Your task to perform on an android device: check google app version Image 0: 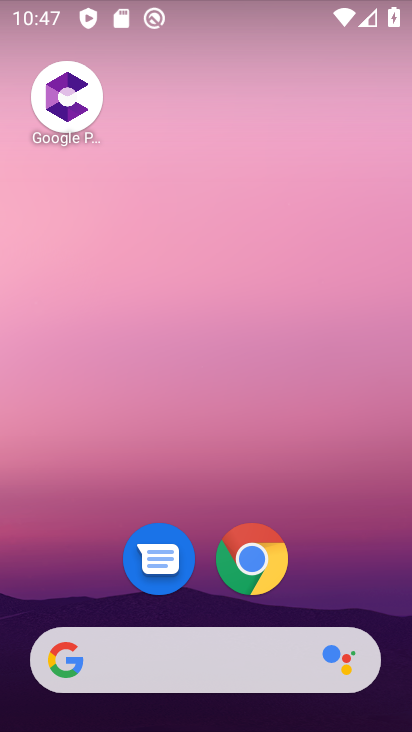
Step 0: drag from (357, 564) to (411, 35)
Your task to perform on an android device: check google app version Image 1: 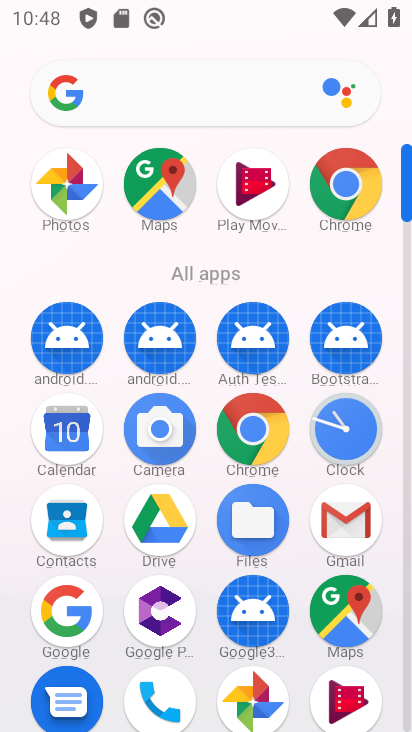
Step 1: drag from (291, 559) to (302, 150)
Your task to perform on an android device: check google app version Image 2: 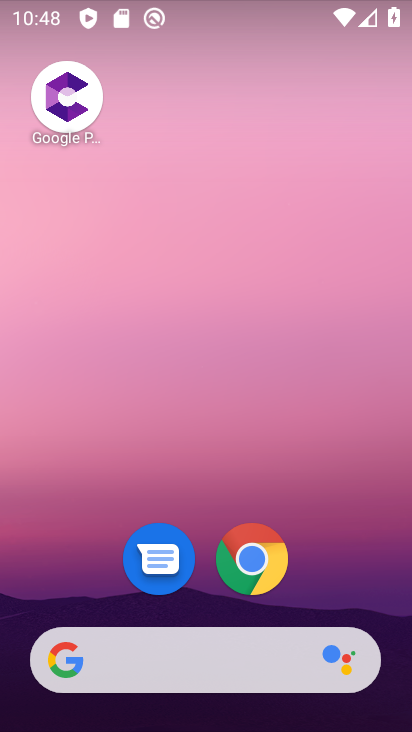
Step 2: drag from (363, 602) to (369, 155)
Your task to perform on an android device: check google app version Image 3: 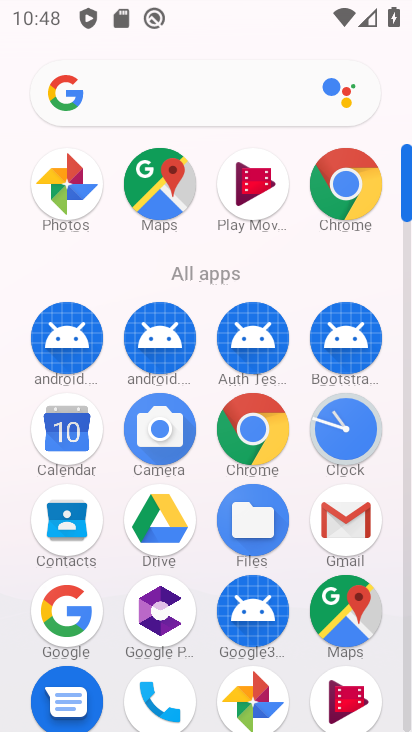
Step 3: click (405, 719)
Your task to perform on an android device: check google app version Image 4: 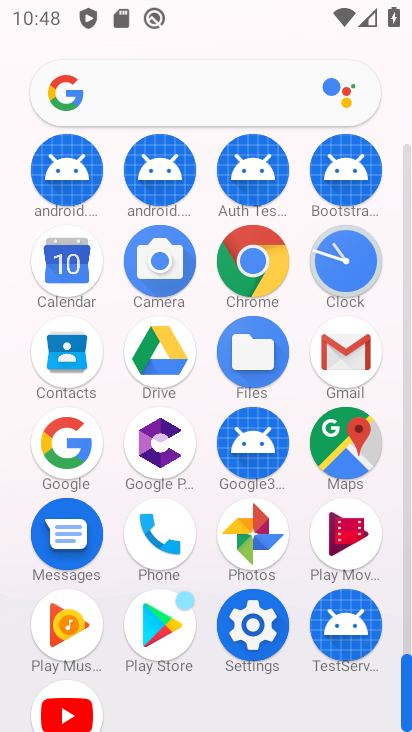
Step 4: click (78, 430)
Your task to perform on an android device: check google app version Image 5: 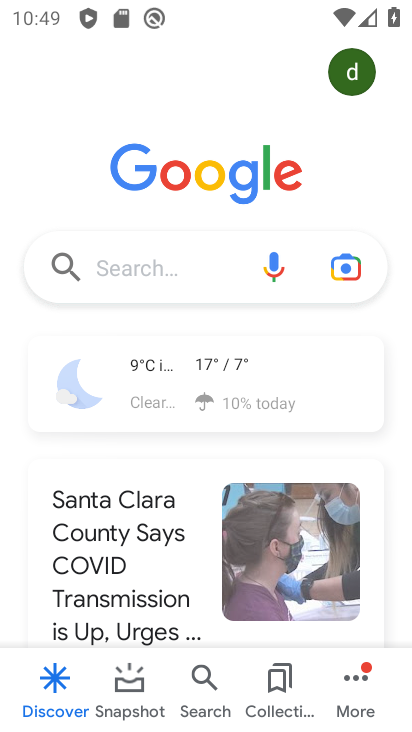
Step 5: task complete